Your task to perform on an android device: open app "Indeed Job Search" (install if not already installed) and enter user name: "quixotic@inbox.com" and password: "microphones" Image 0: 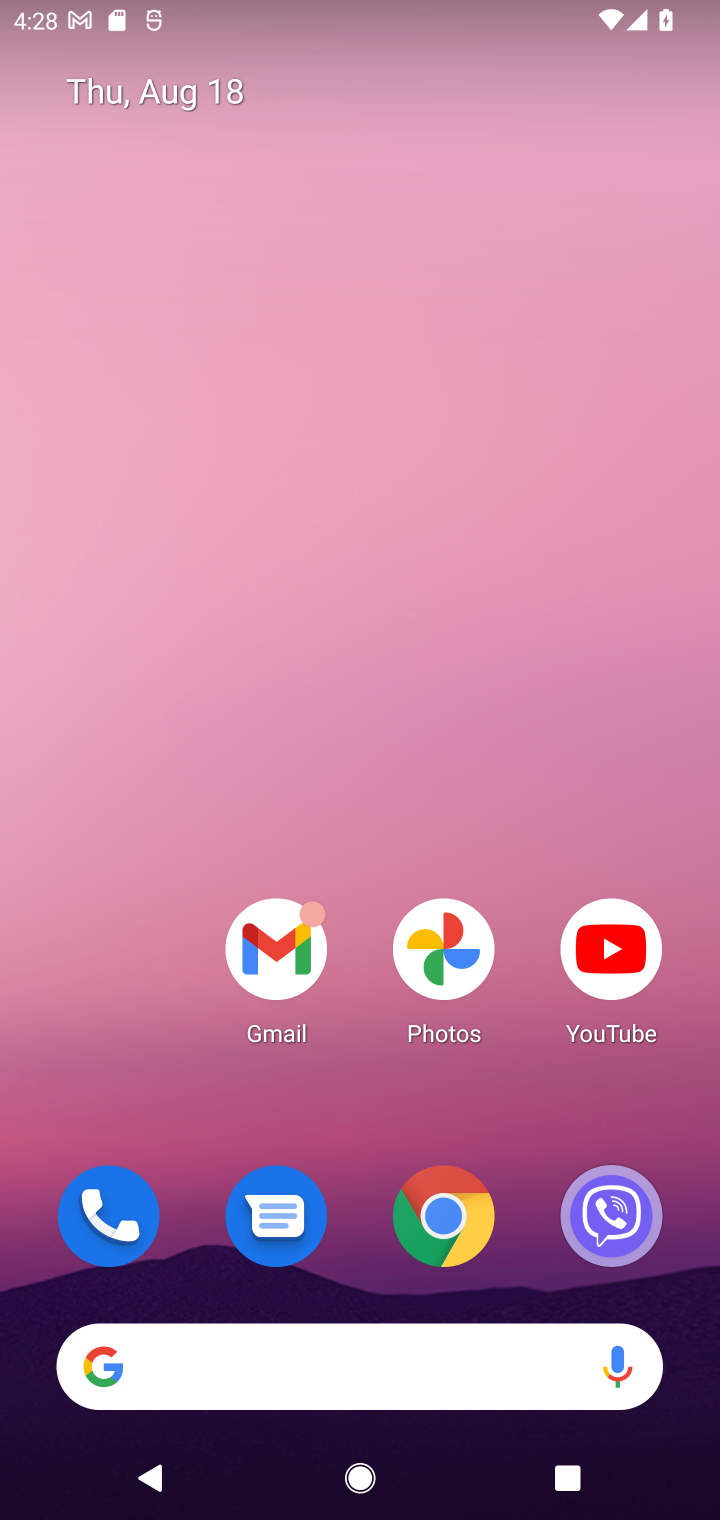
Step 0: drag from (522, 1287) to (495, 289)
Your task to perform on an android device: open app "Indeed Job Search" (install if not already installed) and enter user name: "quixotic@inbox.com" and password: "microphones" Image 1: 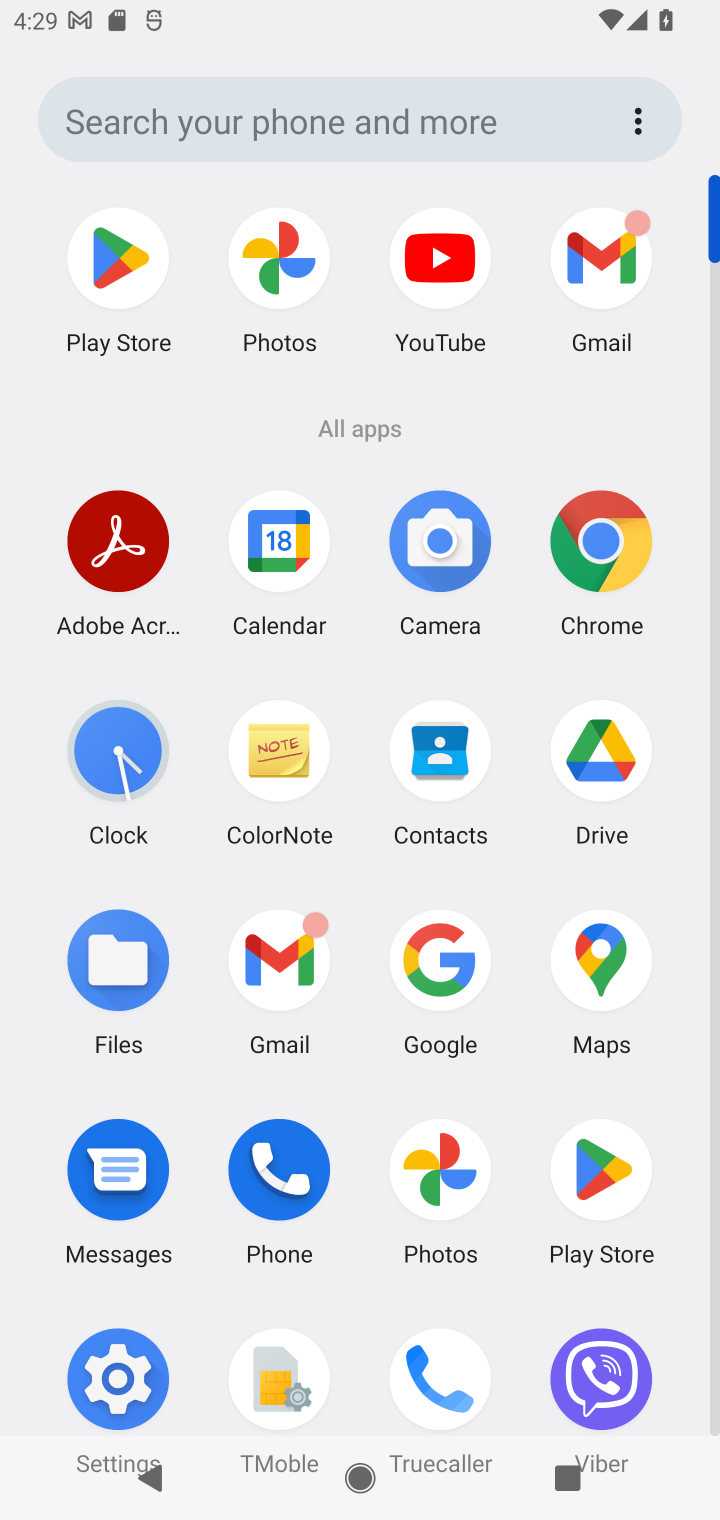
Step 1: drag from (504, 1287) to (511, 617)
Your task to perform on an android device: open app "Indeed Job Search" (install if not already installed) and enter user name: "quixotic@inbox.com" and password: "microphones" Image 2: 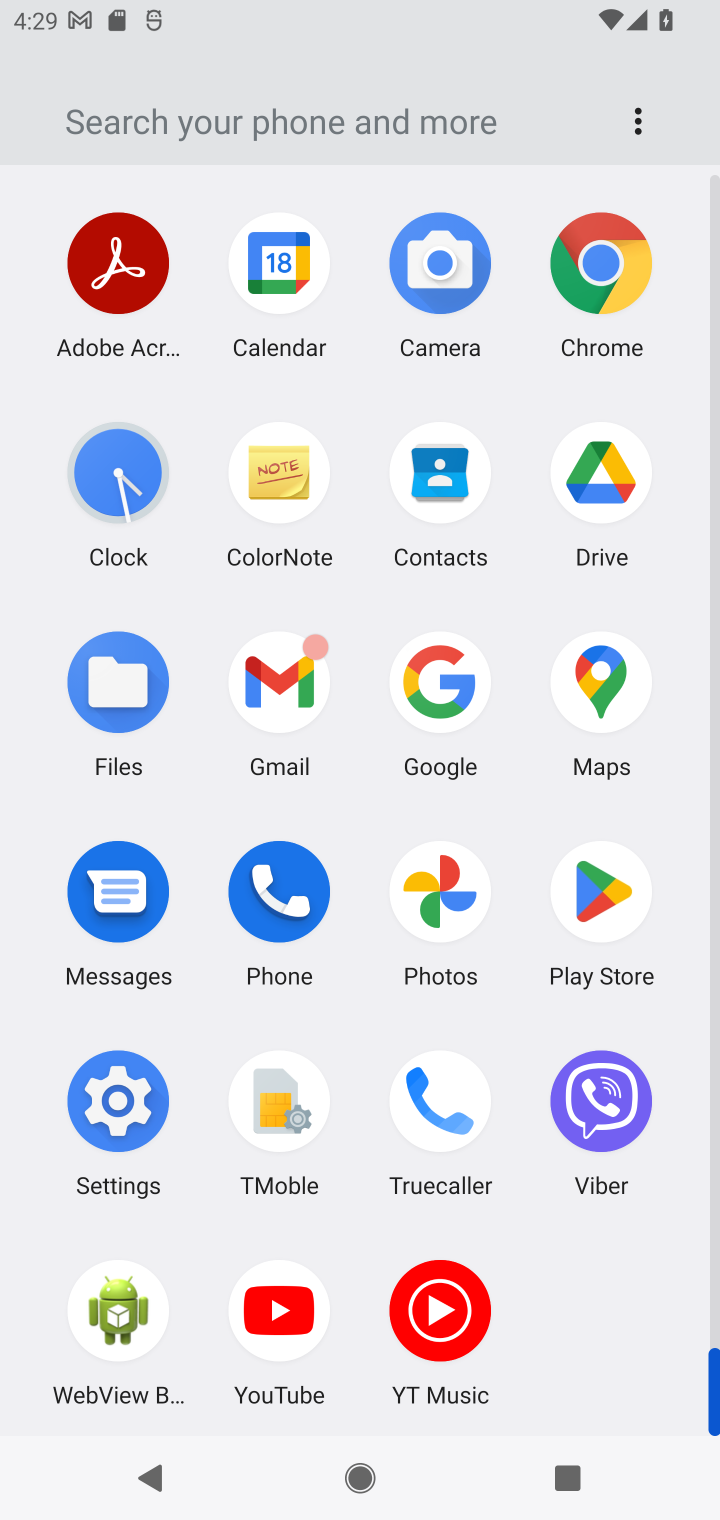
Step 2: click (599, 896)
Your task to perform on an android device: open app "Indeed Job Search" (install if not already installed) and enter user name: "quixotic@inbox.com" and password: "microphones" Image 3: 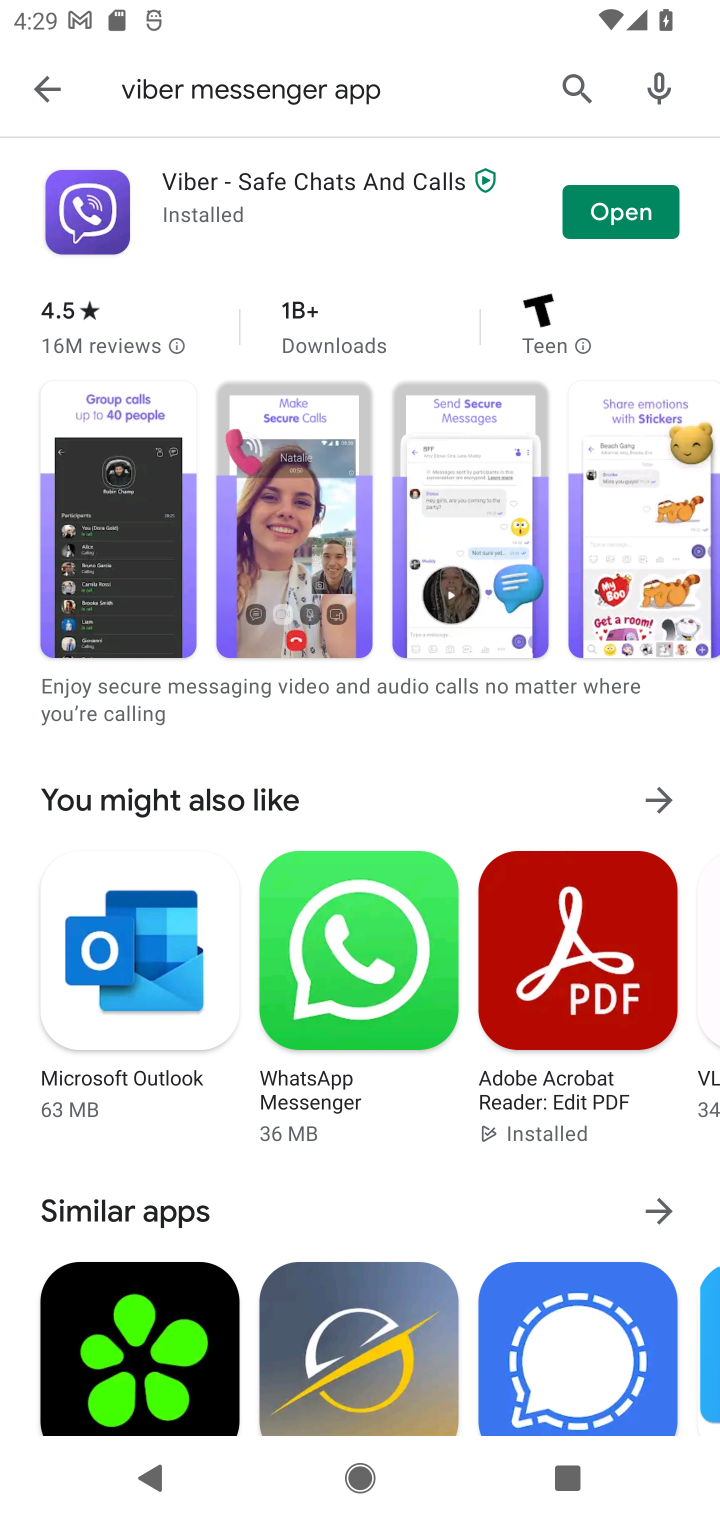
Step 3: click (575, 88)
Your task to perform on an android device: open app "Indeed Job Search" (install if not already installed) and enter user name: "quixotic@inbox.com" and password: "microphones" Image 4: 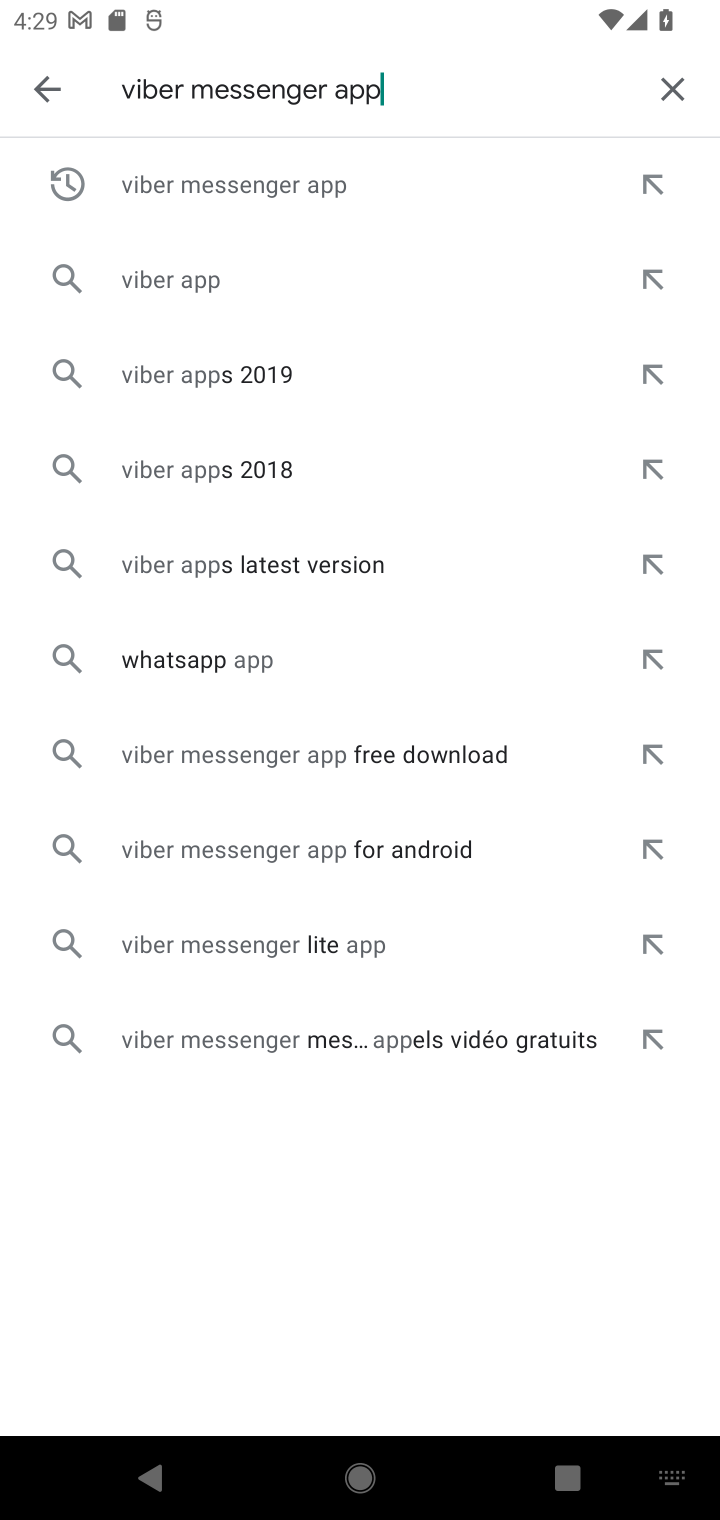
Step 4: click (667, 88)
Your task to perform on an android device: open app "Indeed Job Search" (install if not already installed) and enter user name: "quixotic@inbox.com" and password: "microphones" Image 5: 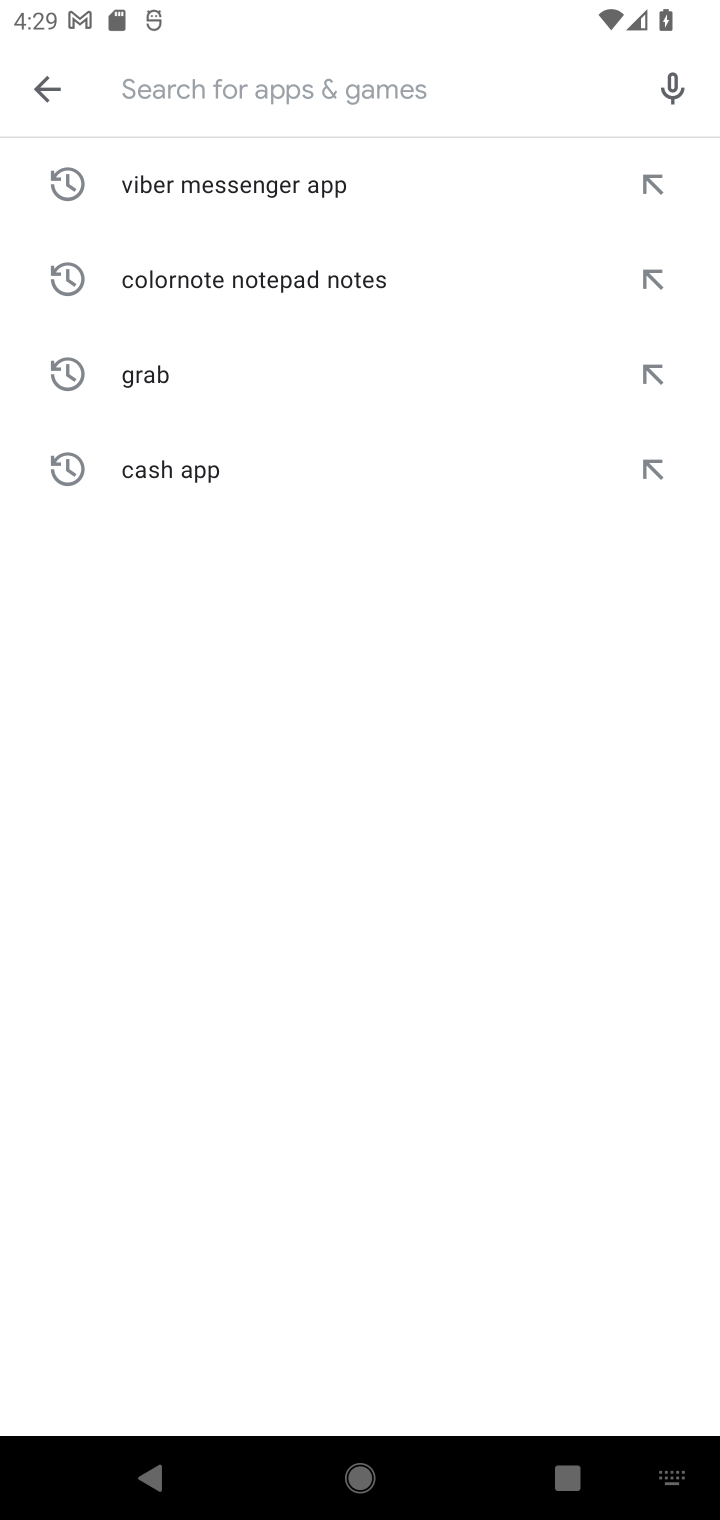
Step 5: type "Indeed Job Search"
Your task to perform on an android device: open app "Indeed Job Search" (install if not already installed) and enter user name: "quixotic@inbox.com" and password: "microphones" Image 6: 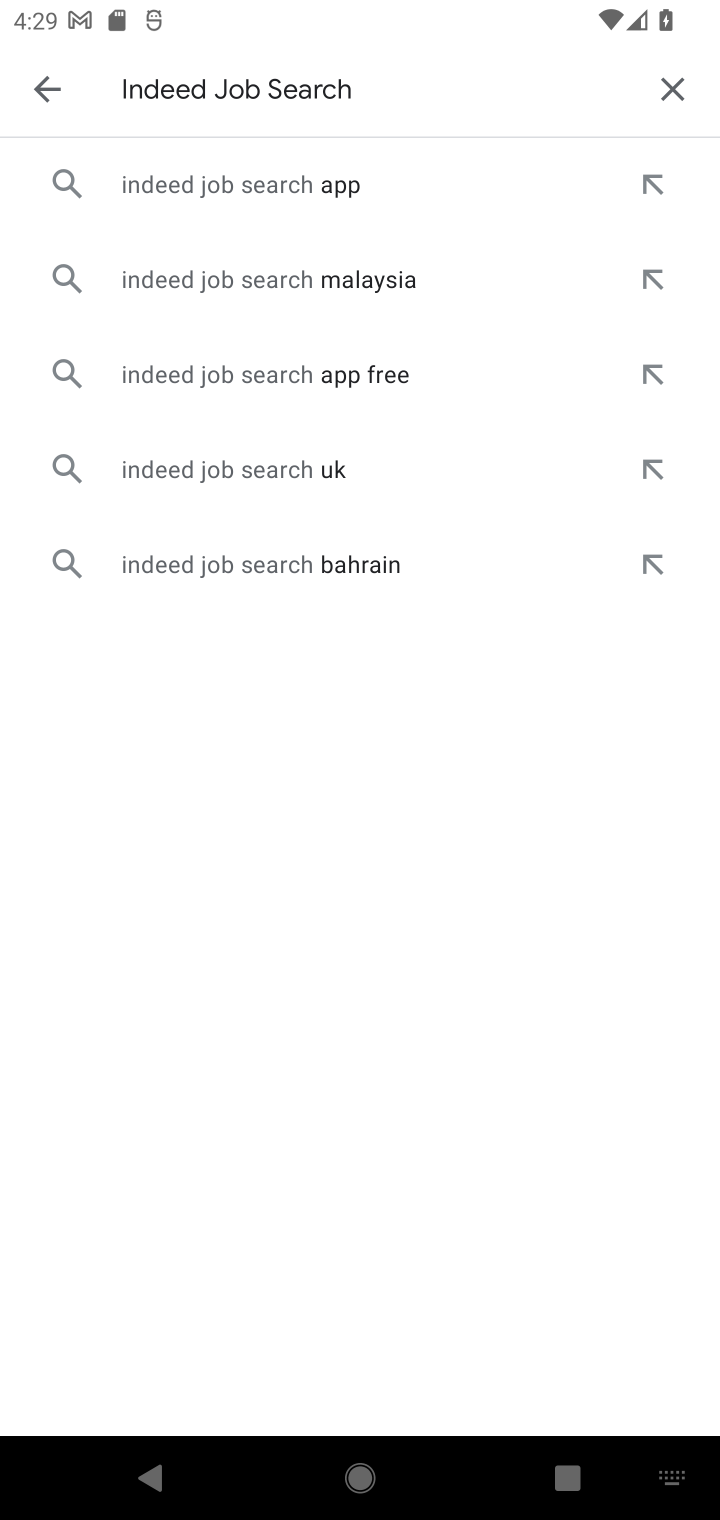
Step 6: click (257, 187)
Your task to perform on an android device: open app "Indeed Job Search" (install if not already installed) and enter user name: "quixotic@inbox.com" and password: "microphones" Image 7: 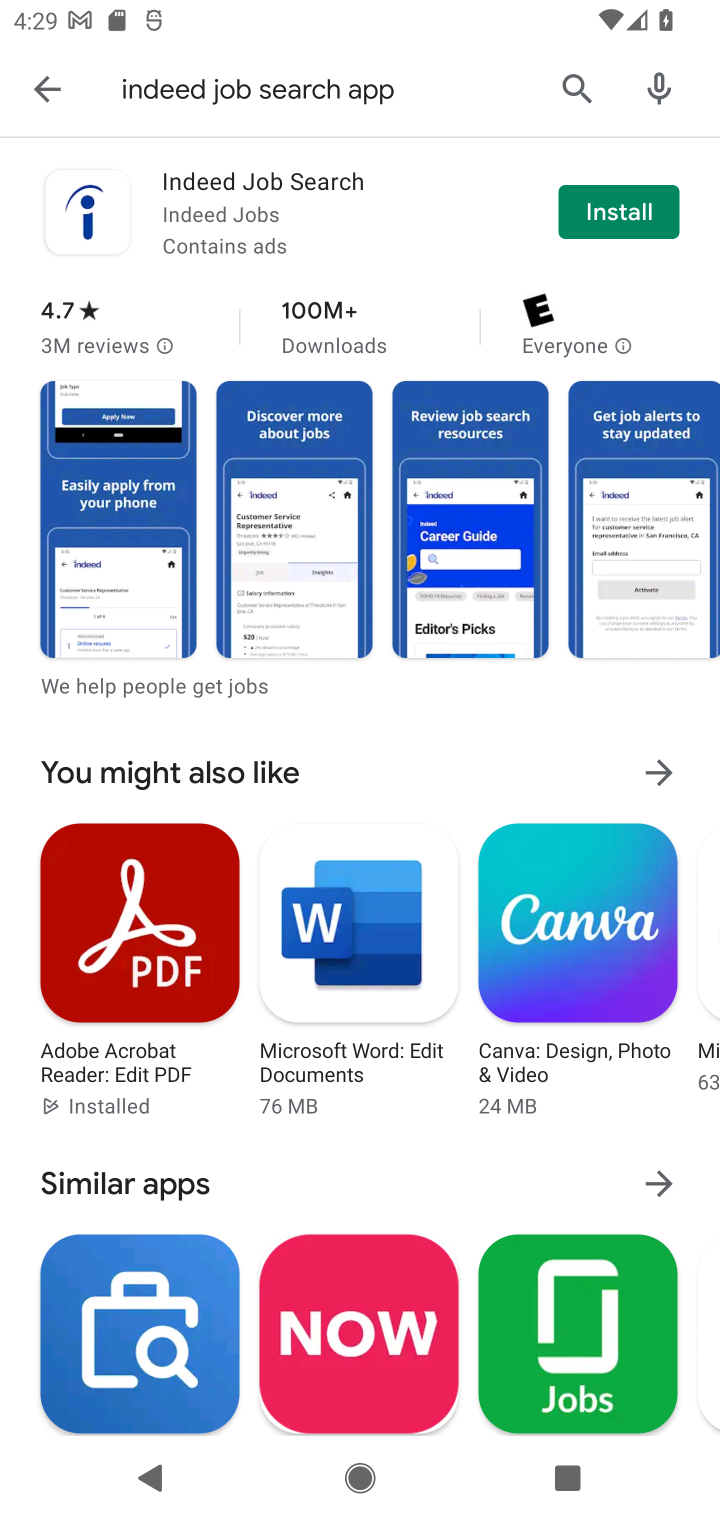
Step 7: click (617, 200)
Your task to perform on an android device: open app "Indeed Job Search" (install if not already installed) and enter user name: "quixotic@inbox.com" and password: "microphones" Image 8: 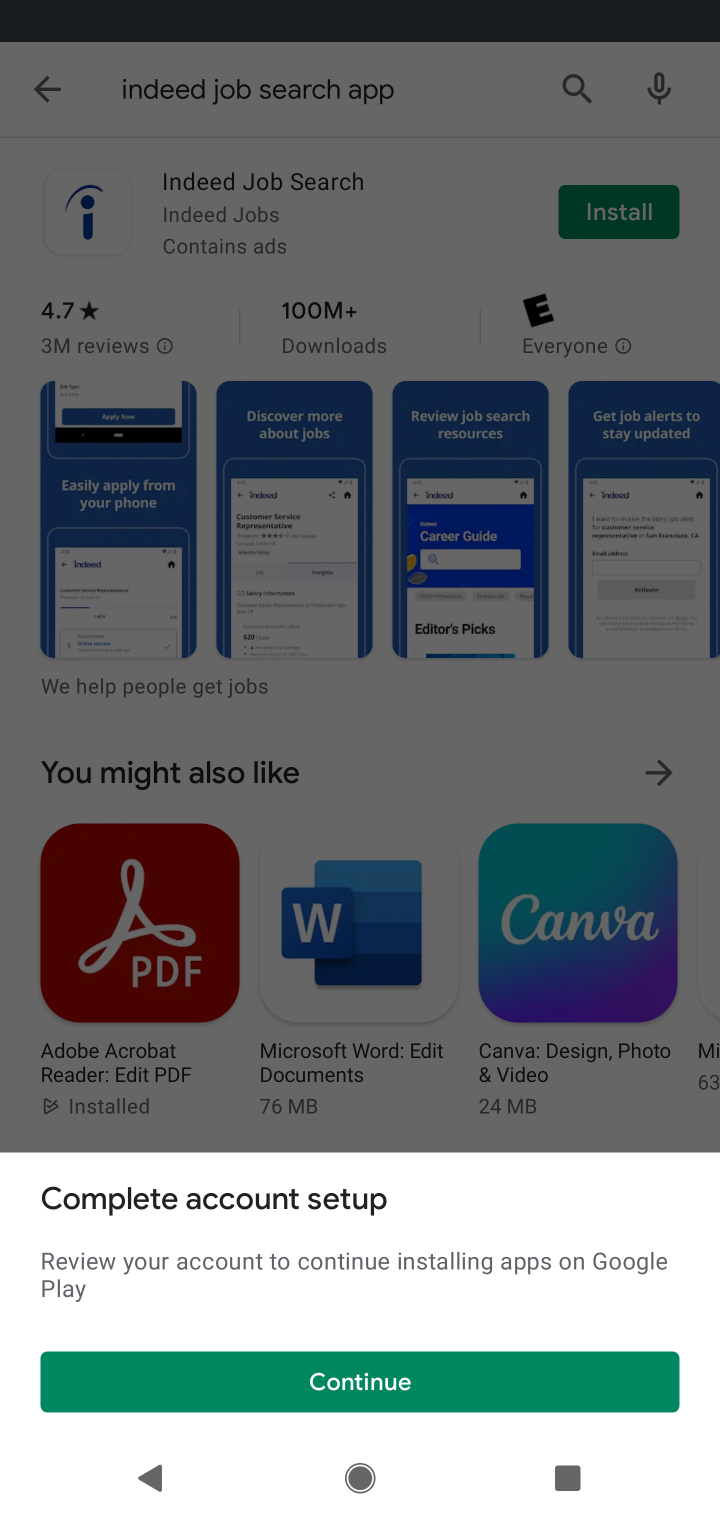
Step 8: click (342, 1381)
Your task to perform on an android device: open app "Indeed Job Search" (install if not already installed) and enter user name: "quixotic@inbox.com" and password: "microphones" Image 9: 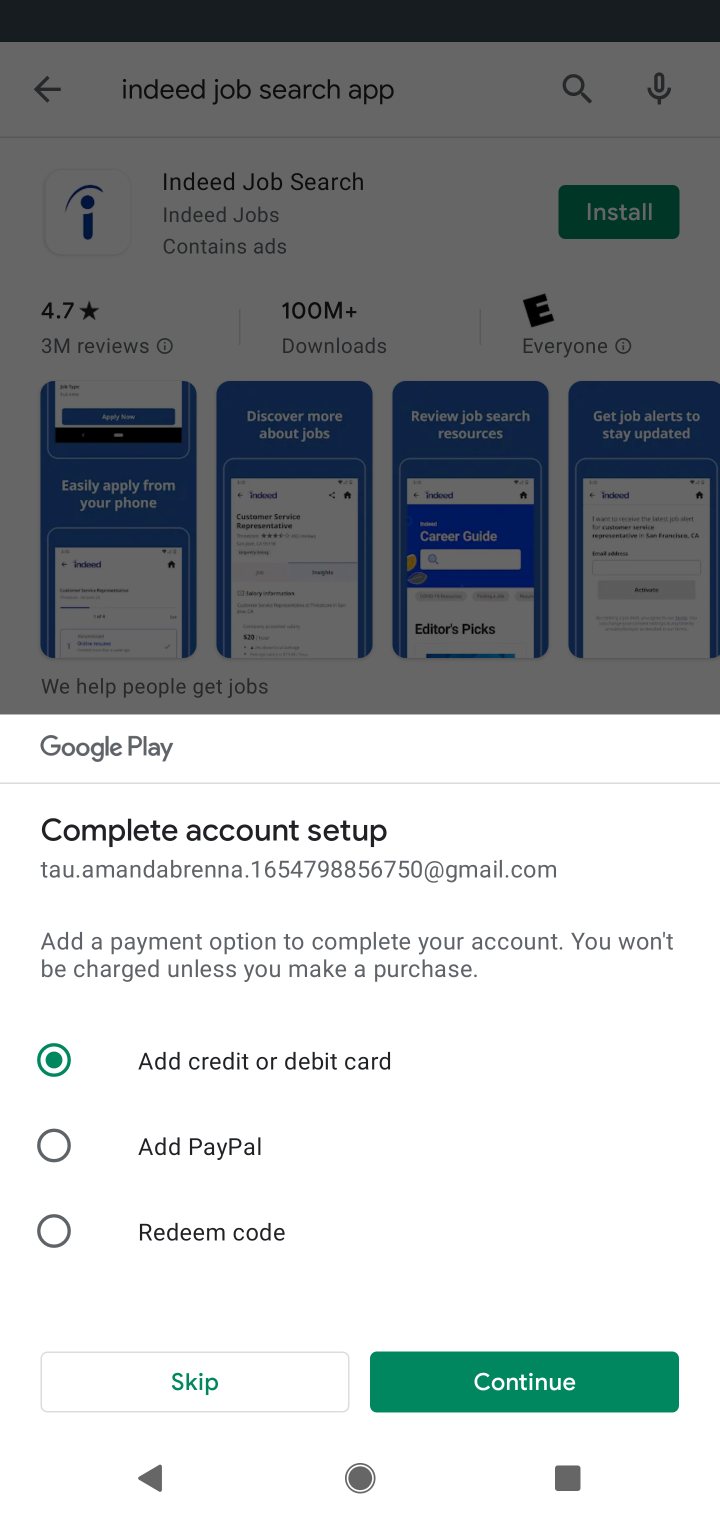
Step 9: click (200, 1382)
Your task to perform on an android device: open app "Indeed Job Search" (install if not already installed) and enter user name: "quixotic@inbox.com" and password: "microphones" Image 10: 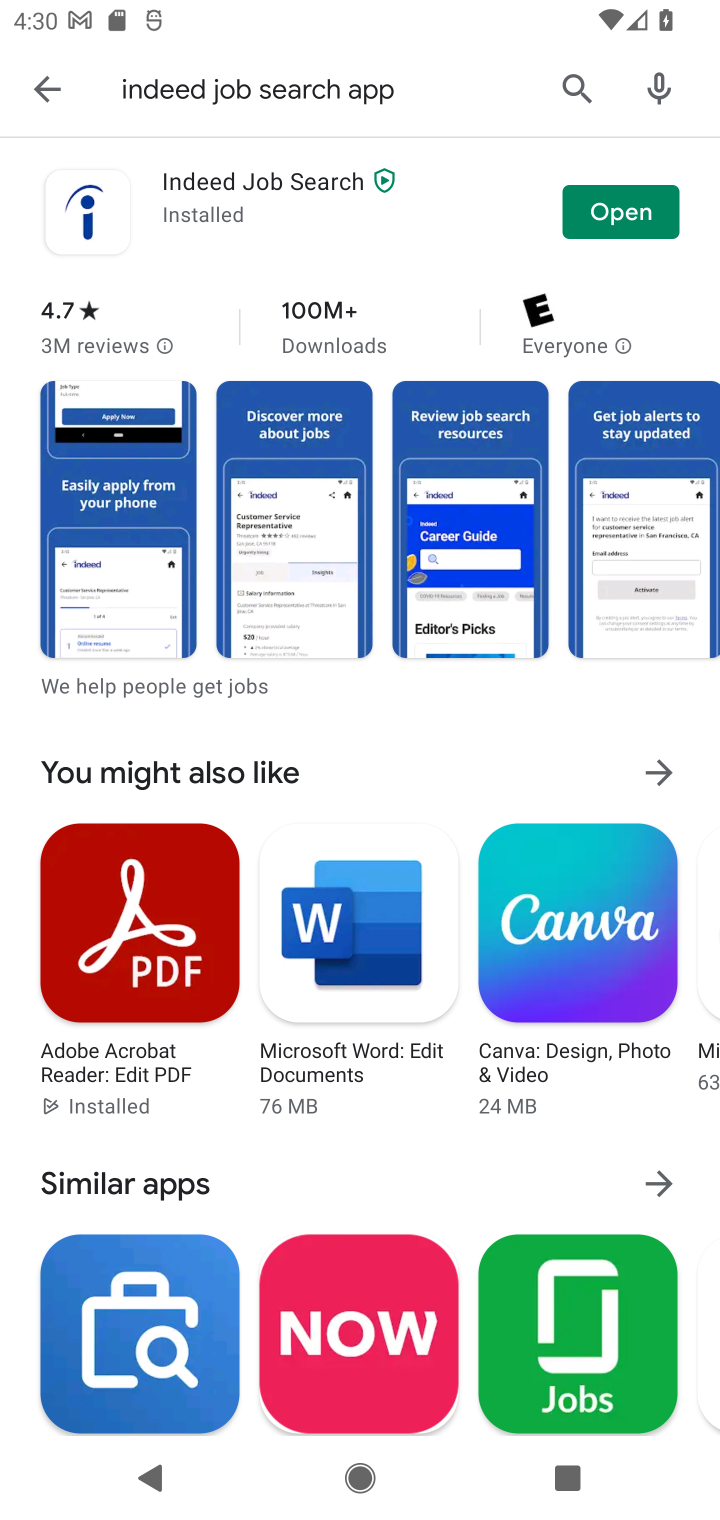
Step 10: click (623, 218)
Your task to perform on an android device: open app "Indeed Job Search" (install if not already installed) and enter user name: "quixotic@inbox.com" and password: "microphones" Image 11: 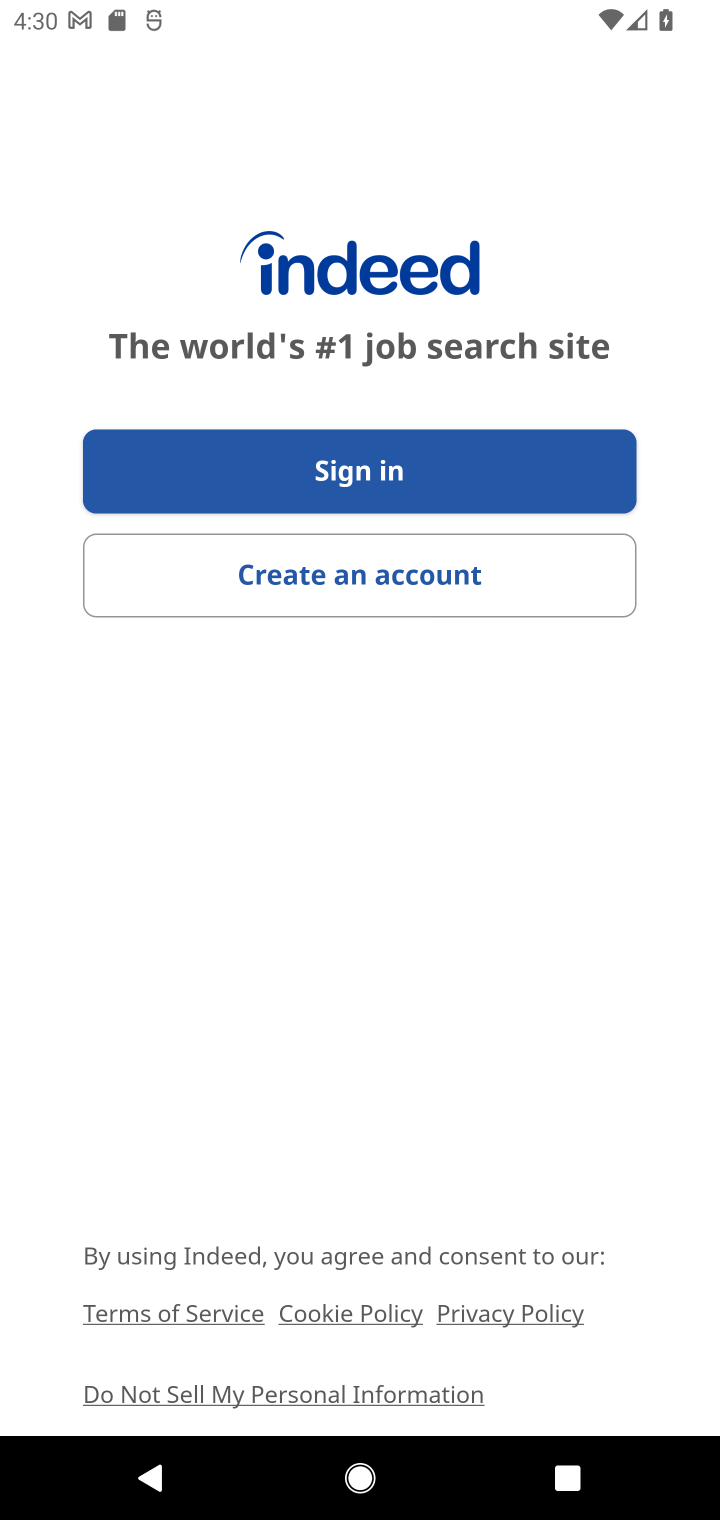
Step 11: click (344, 470)
Your task to perform on an android device: open app "Indeed Job Search" (install if not already installed) and enter user name: "quixotic@inbox.com" and password: "microphones" Image 12: 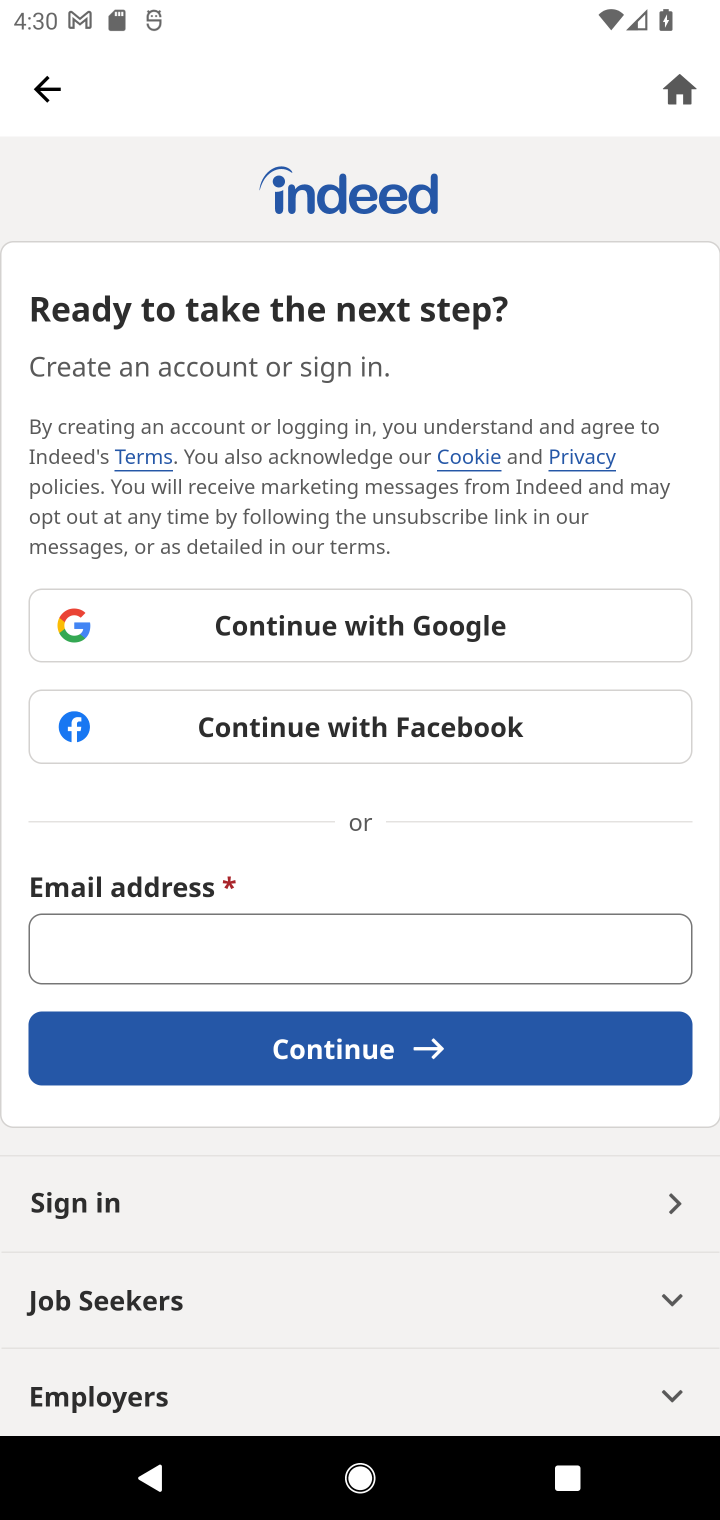
Step 12: click (222, 943)
Your task to perform on an android device: open app "Indeed Job Search" (install if not already installed) and enter user name: "quixotic@inbox.com" and password: "microphones" Image 13: 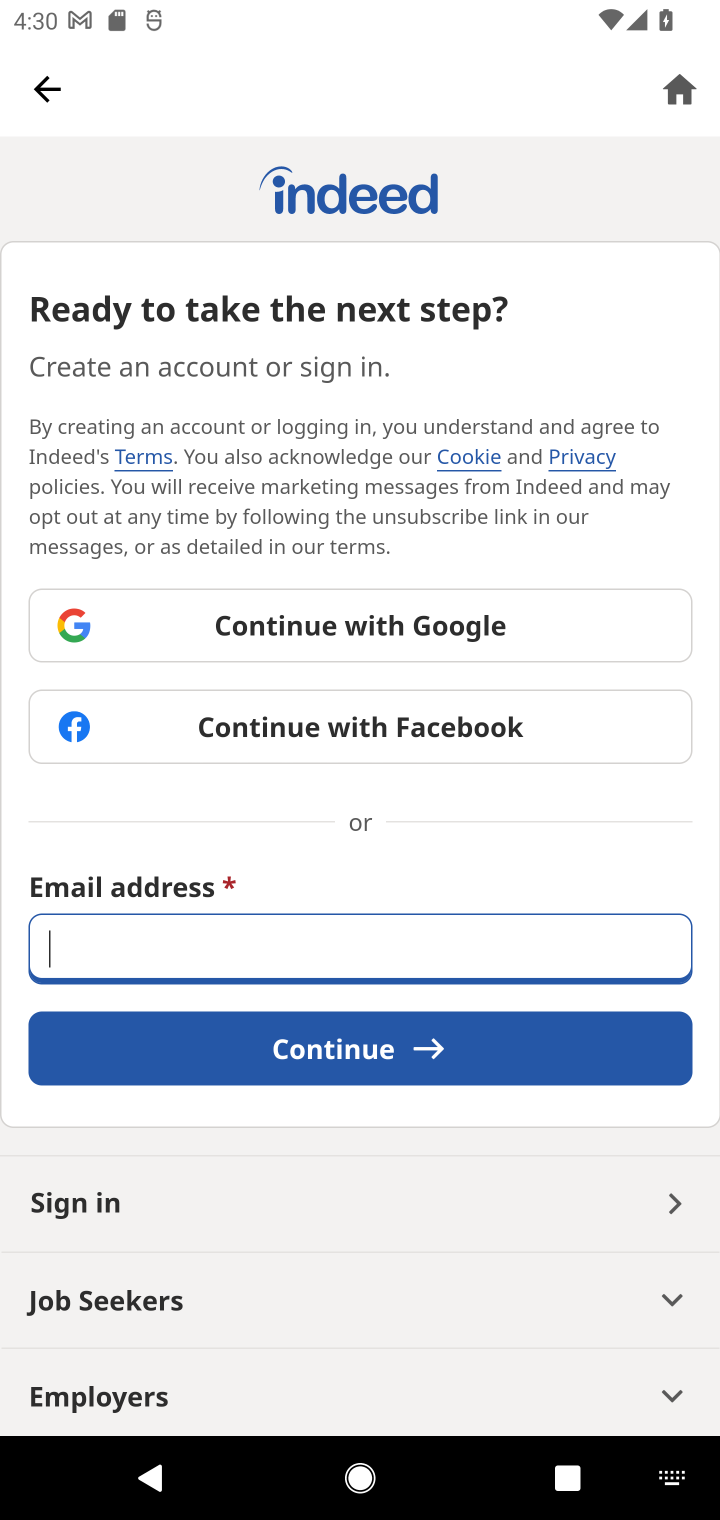
Step 13: type "quixotic@inbox.com"
Your task to perform on an android device: open app "Indeed Job Search" (install if not already installed) and enter user name: "quixotic@inbox.com" and password: "microphones" Image 14: 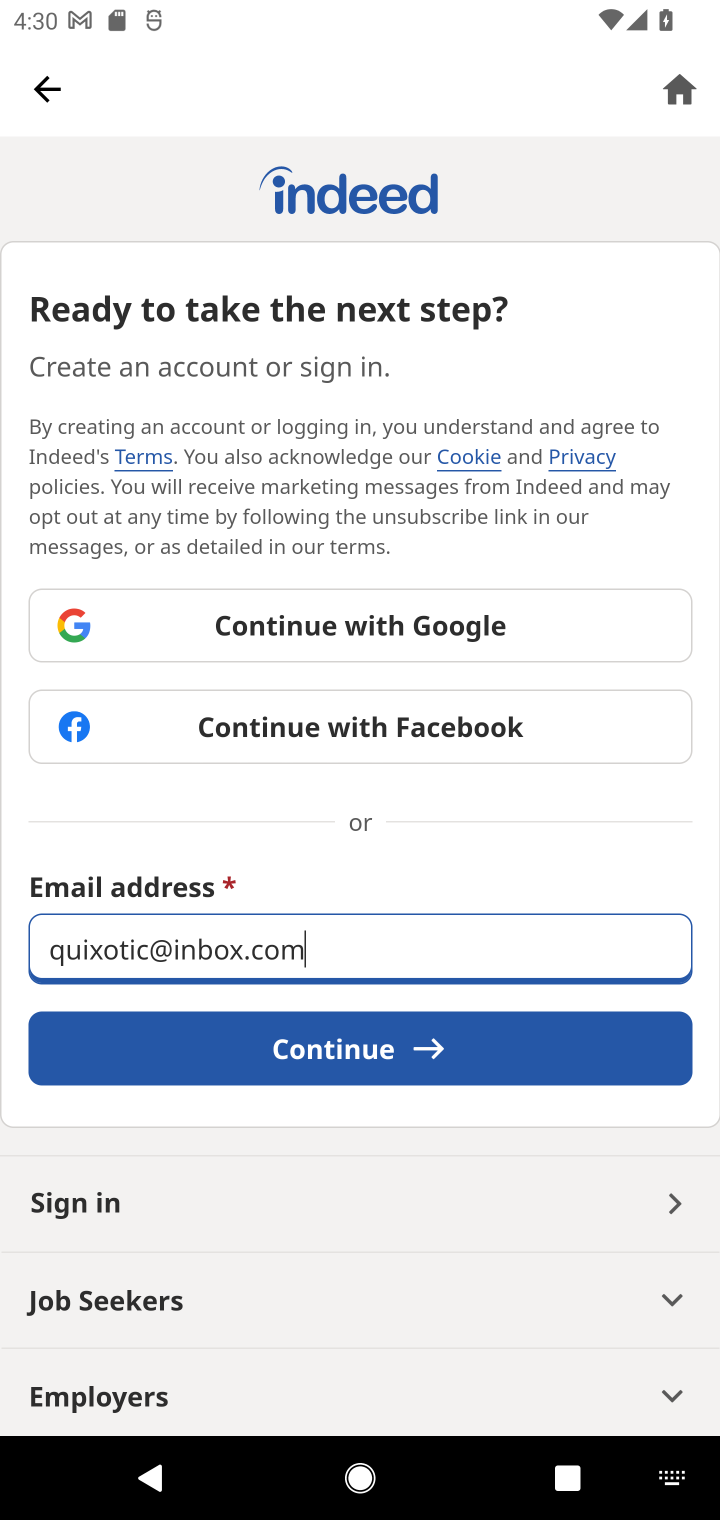
Step 14: click (362, 1047)
Your task to perform on an android device: open app "Indeed Job Search" (install if not already installed) and enter user name: "quixotic@inbox.com" and password: "microphones" Image 15: 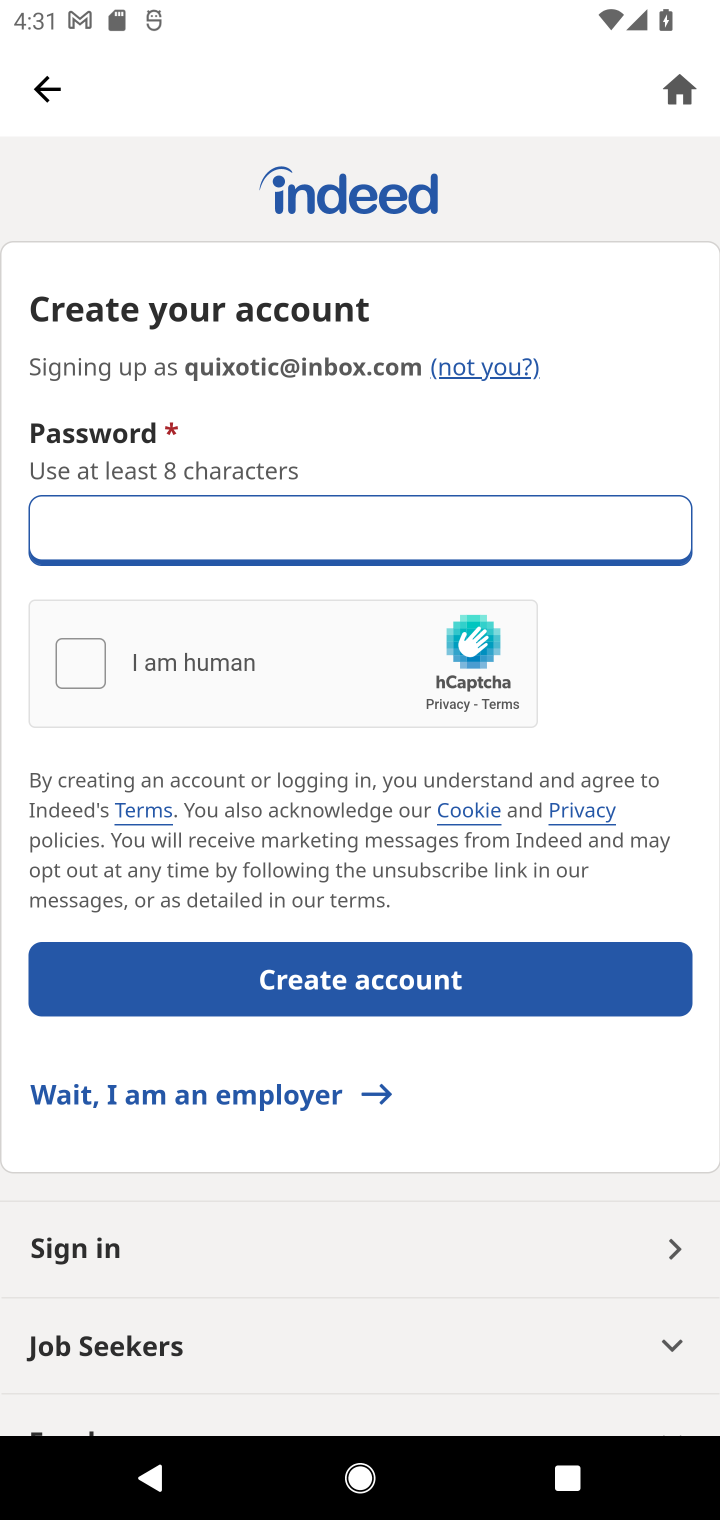
Step 15: click (199, 521)
Your task to perform on an android device: open app "Indeed Job Search" (install if not already installed) and enter user name: "quixotic@inbox.com" and password: "microphones" Image 16: 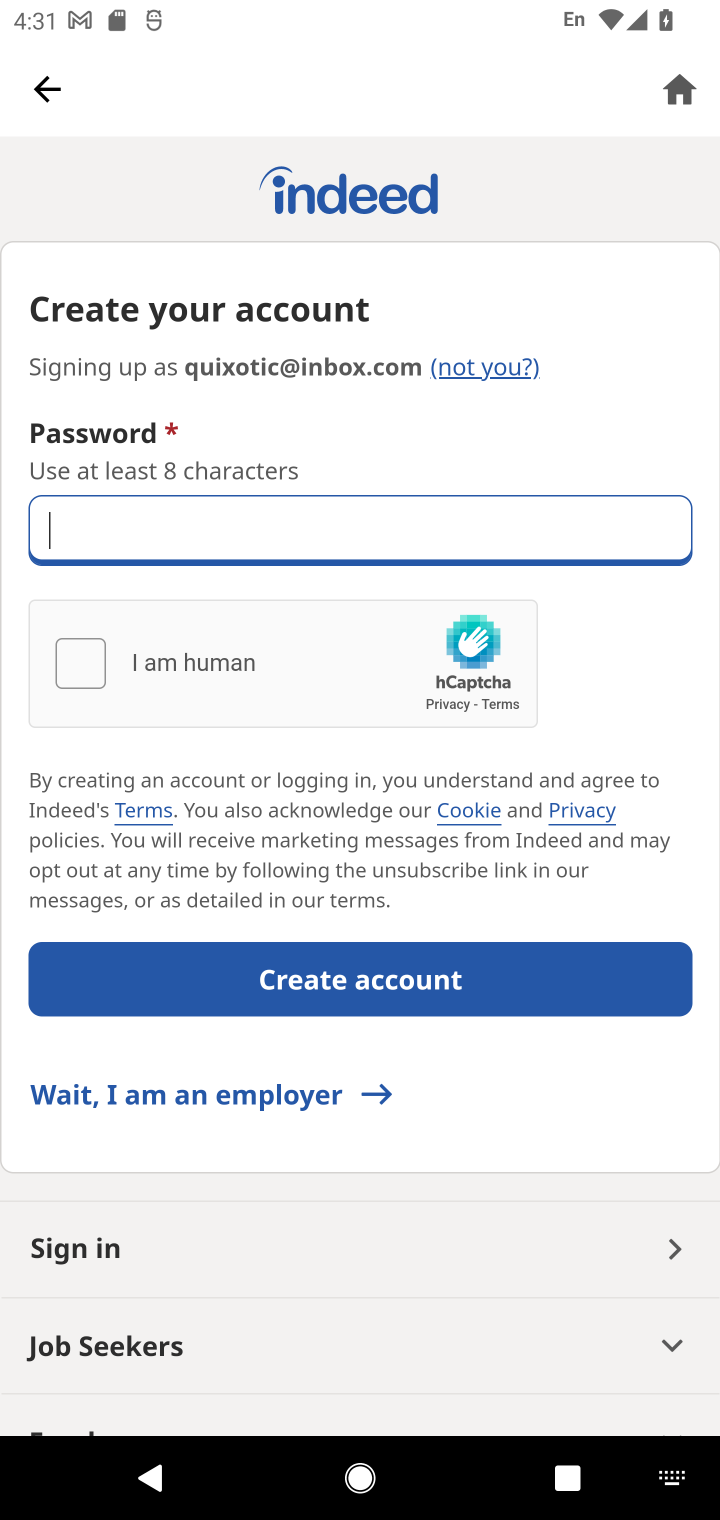
Step 16: type "microphones"
Your task to perform on an android device: open app "Indeed Job Search" (install if not already installed) and enter user name: "quixotic@inbox.com" and password: "microphones" Image 17: 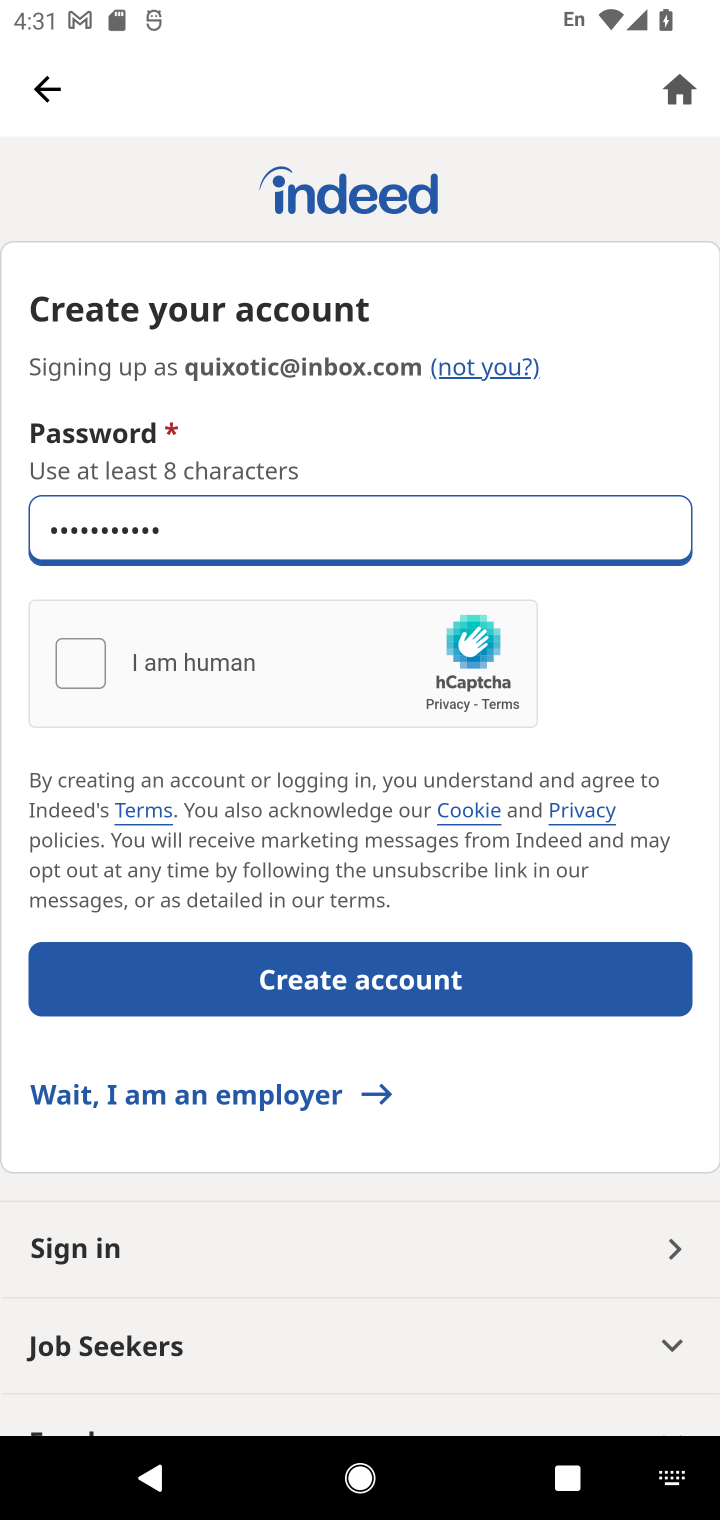
Step 17: task complete